Your task to perform on an android device: Open Chrome and go to settings Image 0: 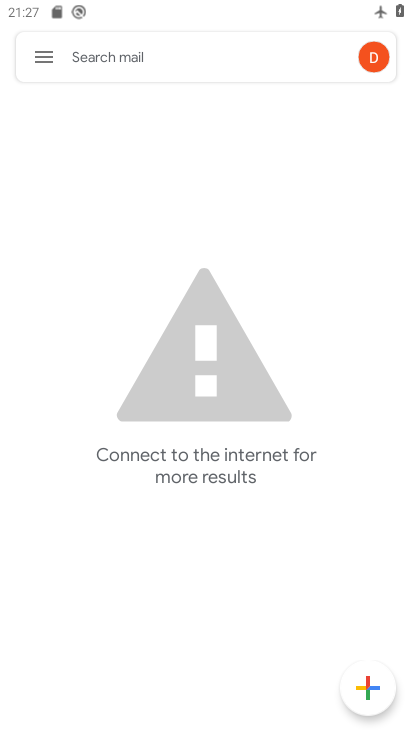
Step 0: press home button
Your task to perform on an android device: Open Chrome and go to settings Image 1: 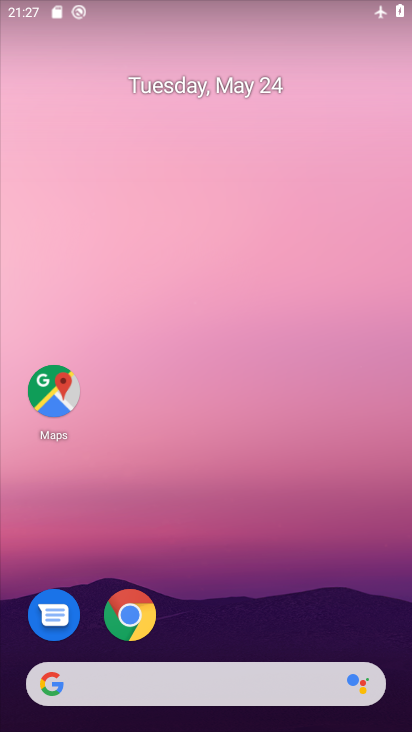
Step 1: click (131, 594)
Your task to perform on an android device: Open Chrome and go to settings Image 2: 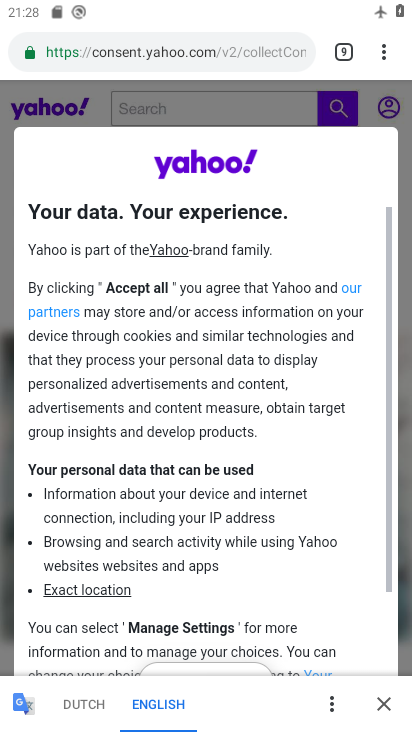
Step 2: click (383, 49)
Your task to perform on an android device: Open Chrome and go to settings Image 3: 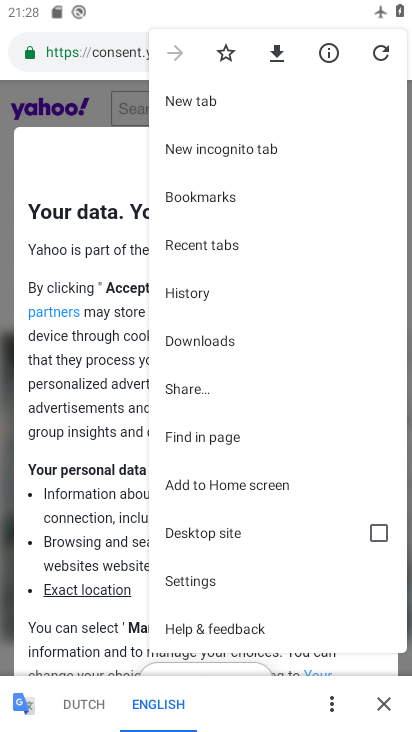
Step 3: click (210, 573)
Your task to perform on an android device: Open Chrome and go to settings Image 4: 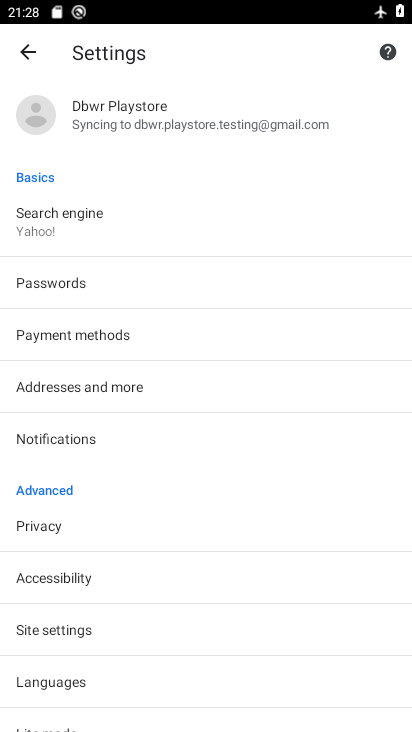
Step 4: task complete